Your task to perform on an android device: delete browsing data in the chrome app Image 0: 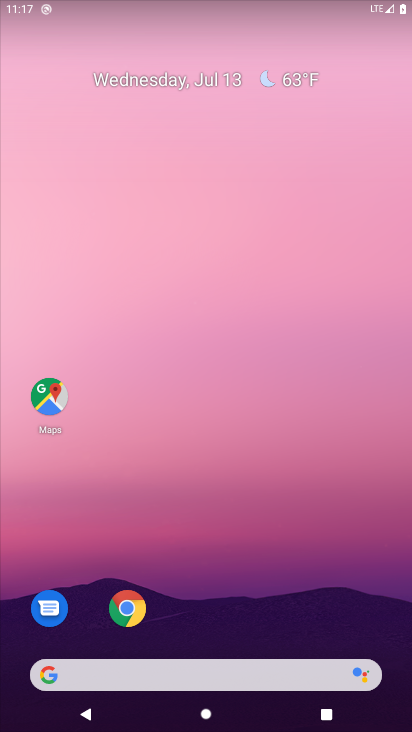
Step 0: drag from (280, 620) to (389, 25)
Your task to perform on an android device: delete browsing data in the chrome app Image 1: 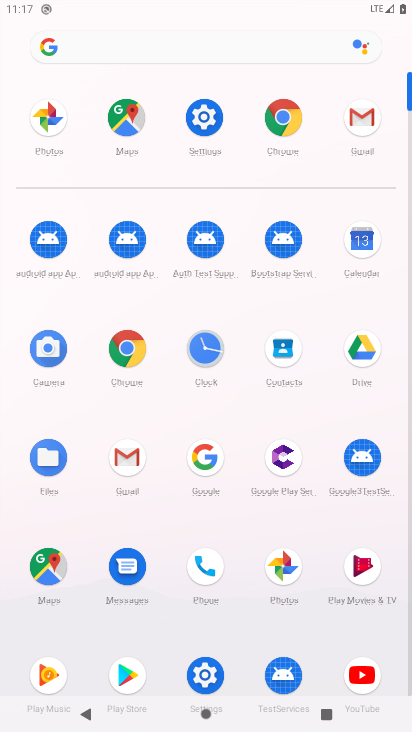
Step 1: click (127, 336)
Your task to perform on an android device: delete browsing data in the chrome app Image 2: 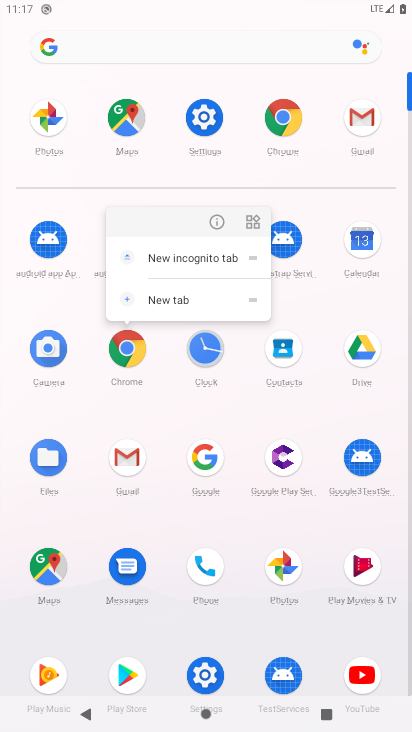
Step 2: click (124, 348)
Your task to perform on an android device: delete browsing data in the chrome app Image 3: 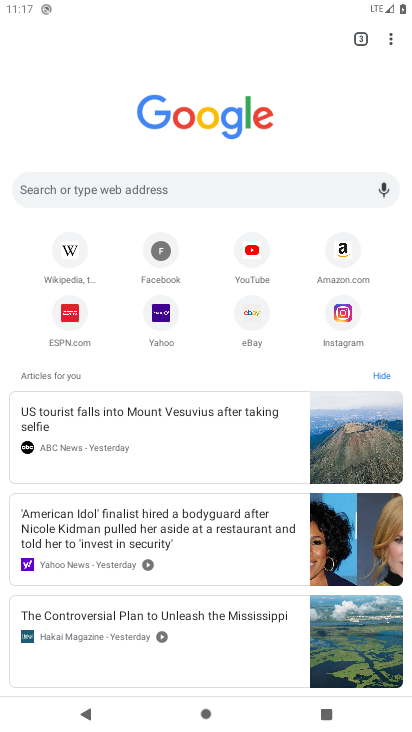
Step 3: click (395, 40)
Your task to perform on an android device: delete browsing data in the chrome app Image 4: 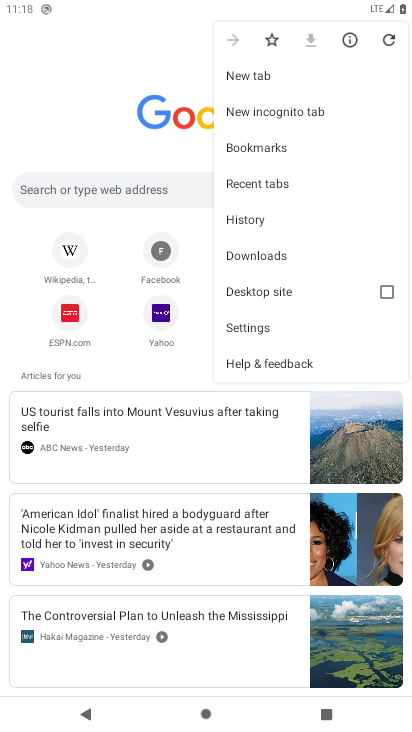
Step 4: click (273, 326)
Your task to perform on an android device: delete browsing data in the chrome app Image 5: 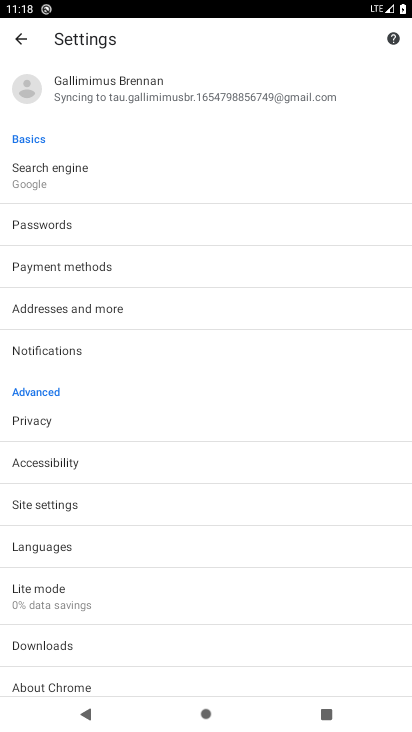
Step 5: click (23, 417)
Your task to perform on an android device: delete browsing data in the chrome app Image 6: 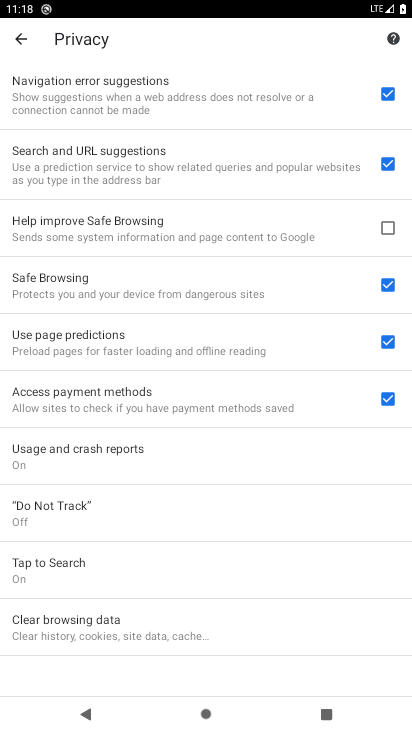
Step 6: click (183, 626)
Your task to perform on an android device: delete browsing data in the chrome app Image 7: 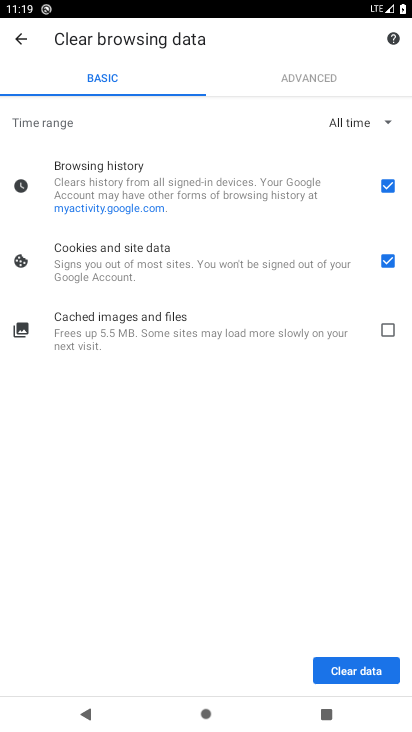
Step 7: click (350, 666)
Your task to perform on an android device: delete browsing data in the chrome app Image 8: 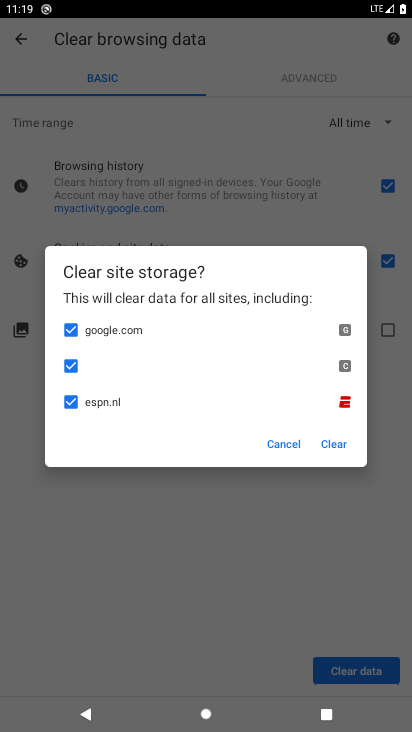
Step 8: click (339, 443)
Your task to perform on an android device: delete browsing data in the chrome app Image 9: 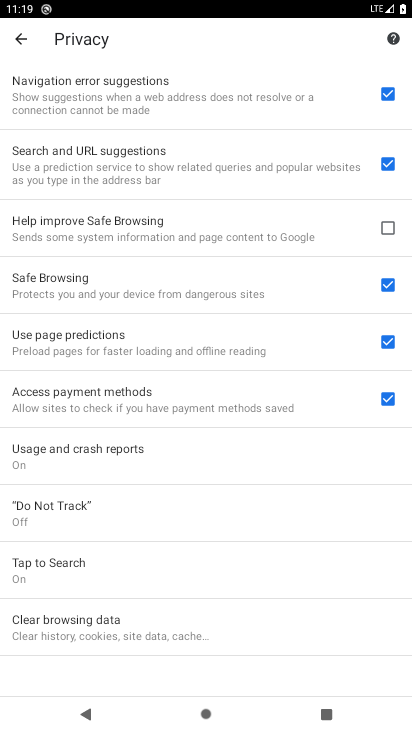
Step 9: task complete